Your task to perform on an android device: Go to Yahoo.com Image 0: 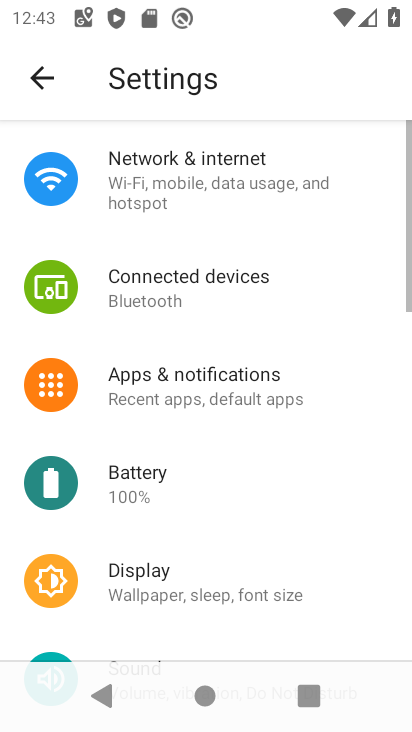
Step 0: press home button
Your task to perform on an android device: Go to Yahoo.com Image 1: 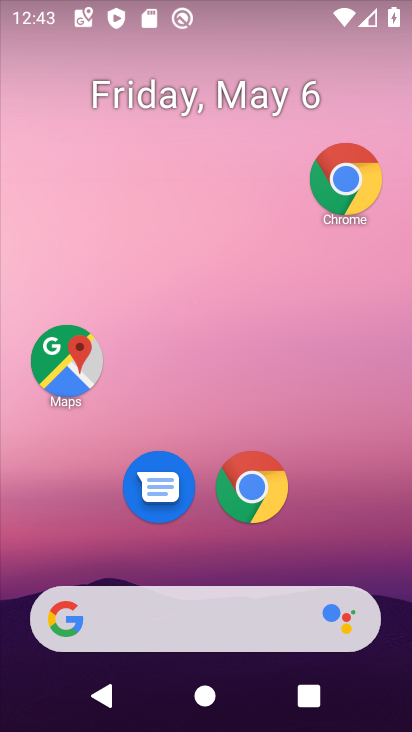
Step 1: click (344, 570)
Your task to perform on an android device: Go to Yahoo.com Image 2: 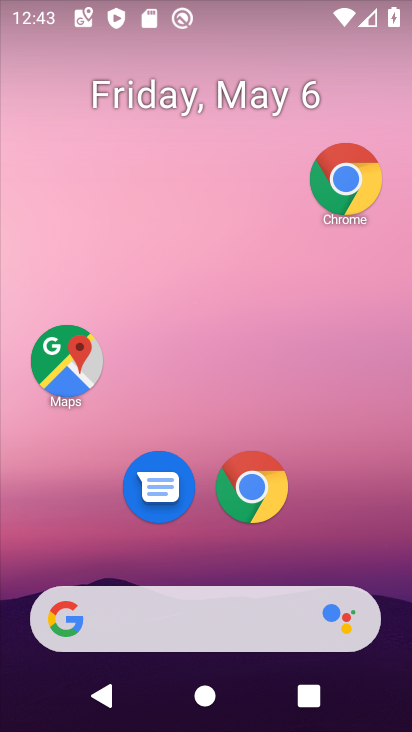
Step 2: click (251, 471)
Your task to perform on an android device: Go to Yahoo.com Image 3: 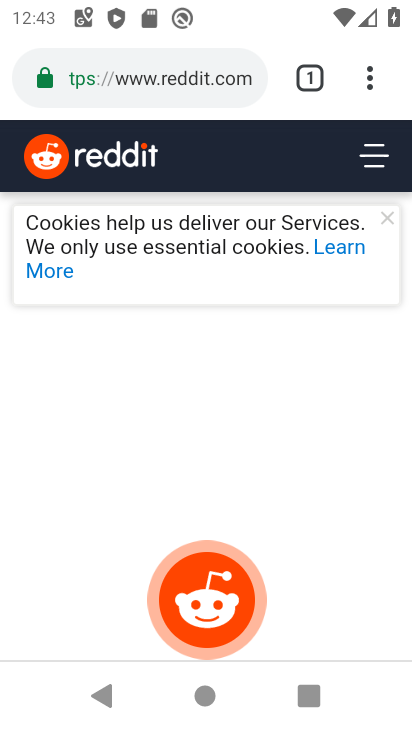
Step 3: click (238, 89)
Your task to perform on an android device: Go to Yahoo.com Image 4: 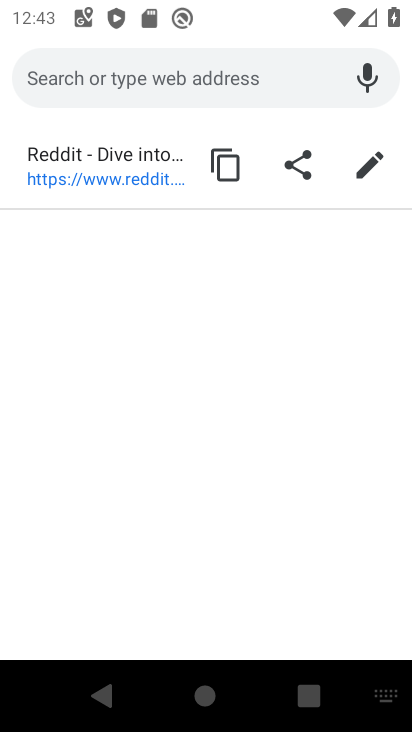
Step 4: type "yahoo.com"
Your task to perform on an android device: Go to Yahoo.com Image 5: 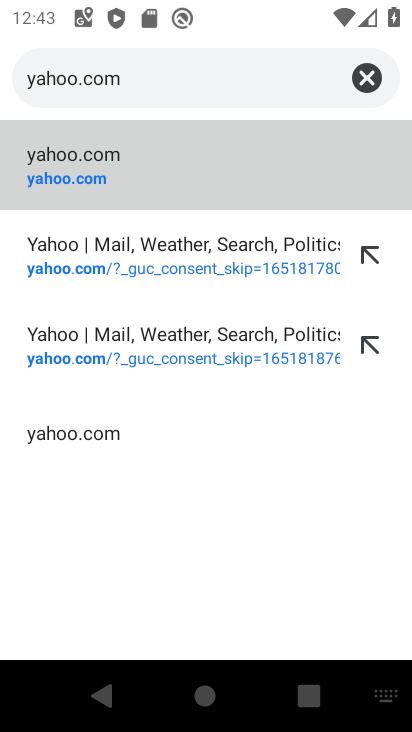
Step 5: click (205, 187)
Your task to perform on an android device: Go to Yahoo.com Image 6: 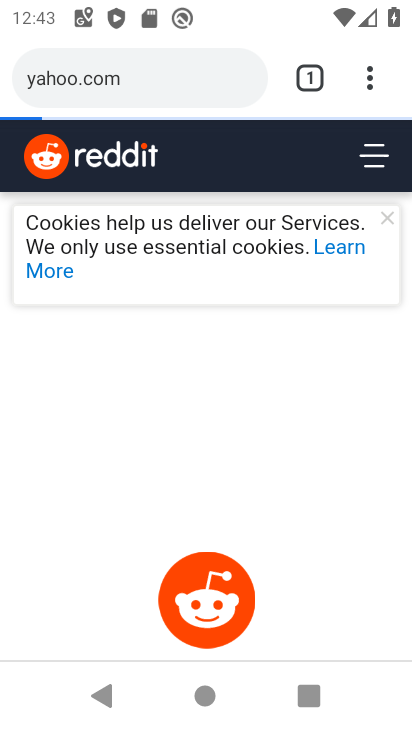
Step 6: task complete